Your task to perform on an android device: add a label to a message in the gmail app Image 0: 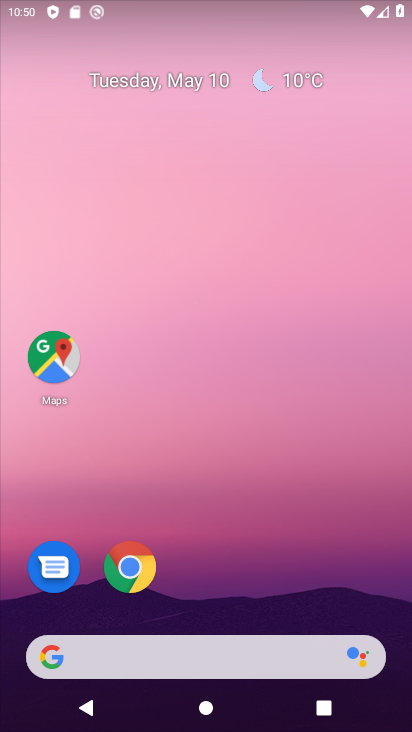
Step 0: drag from (303, 670) to (316, 193)
Your task to perform on an android device: add a label to a message in the gmail app Image 1: 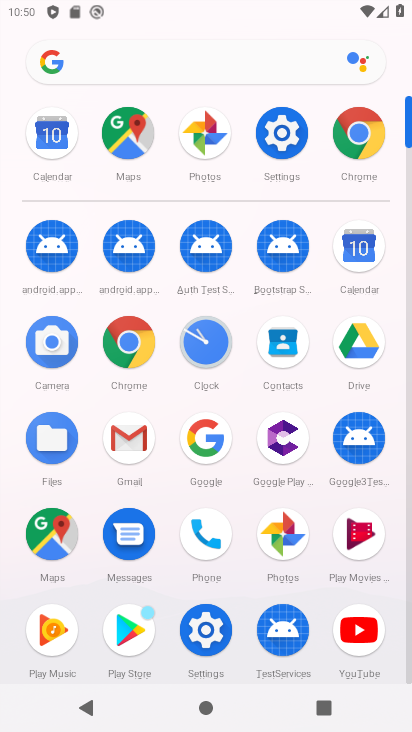
Step 1: click (116, 452)
Your task to perform on an android device: add a label to a message in the gmail app Image 2: 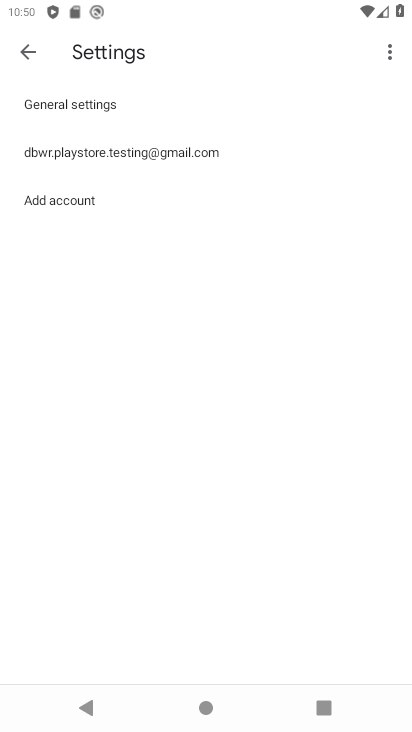
Step 2: task complete